Your task to perform on an android device: add a contact in the contacts app Image 0: 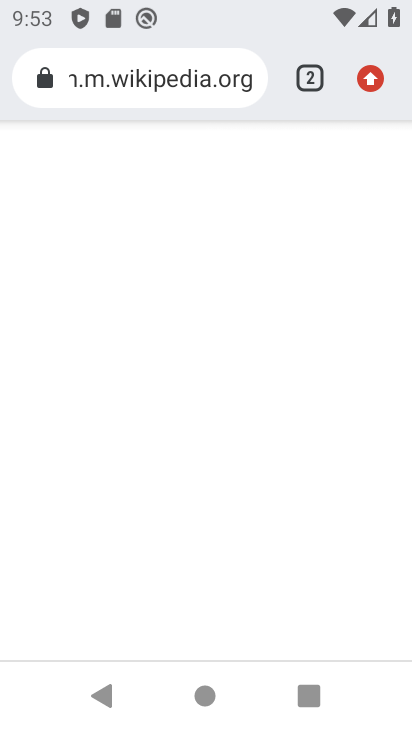
Step 0: press home button
Your task to perform on an android device: add a contact in the contacts app Image 1: 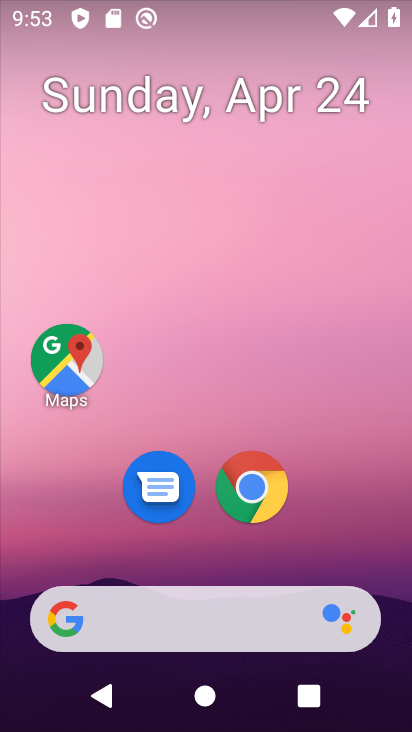
Step 1: drag from (329, 528) to (312, 113)
Your task to perform on an android device: add a contact in the contacts app Image 2: 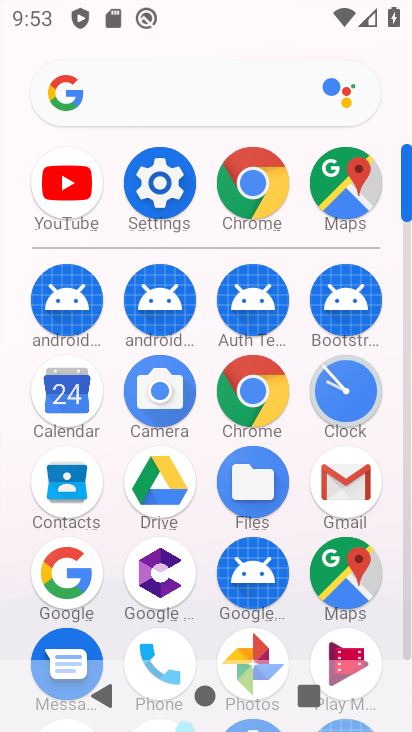
Step 2: click (72, 486)
Your task to perform on an android device: add a contact in the contacts app Image 3: 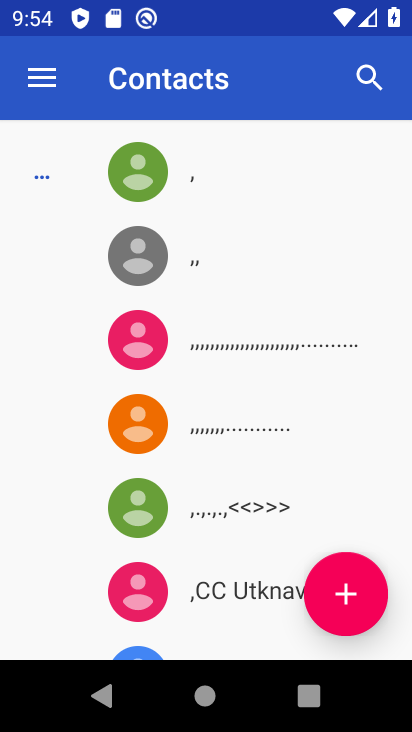
Step 3: task complete